Your task to perform on an android device: turn notification dots off Image 0: 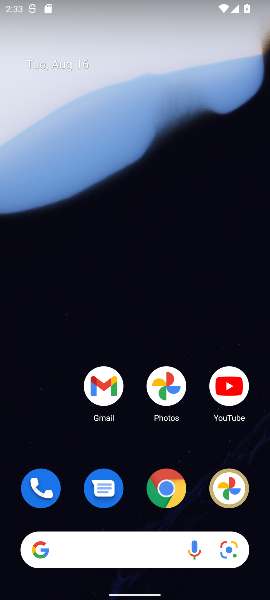
Step 0: drag from (134, 51) to (105, 5)
Your task to perform on an android device: turn notification dots off Image 1: 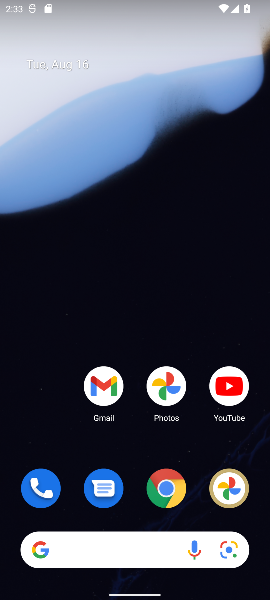
Step 1: task complete